Your task to perform on an android device: install app "Indeed Job Search" Image 0: 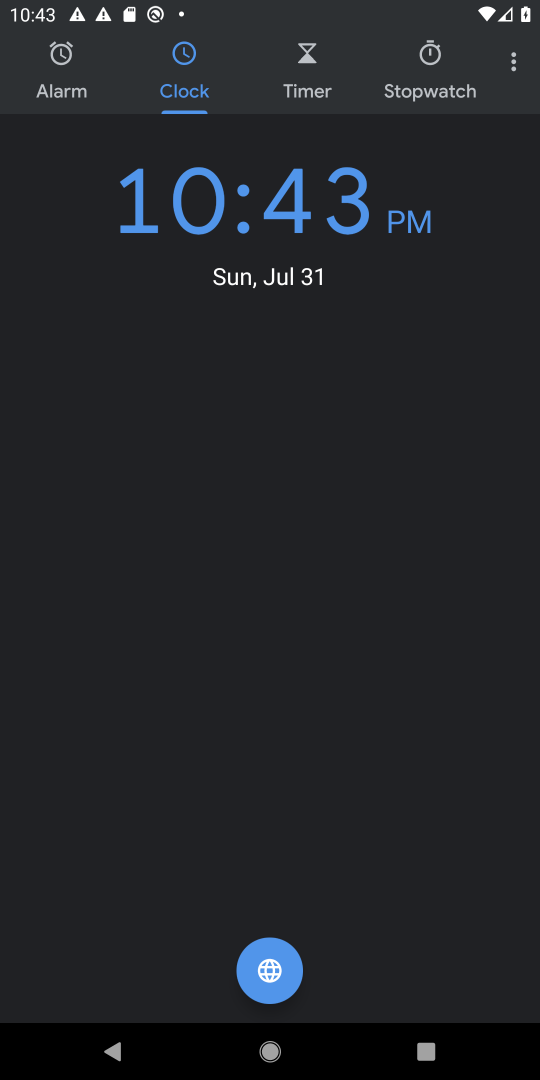
Step 0: press home button
Your task to perform on an android device: install app "Indeed Job Search" Image 1: 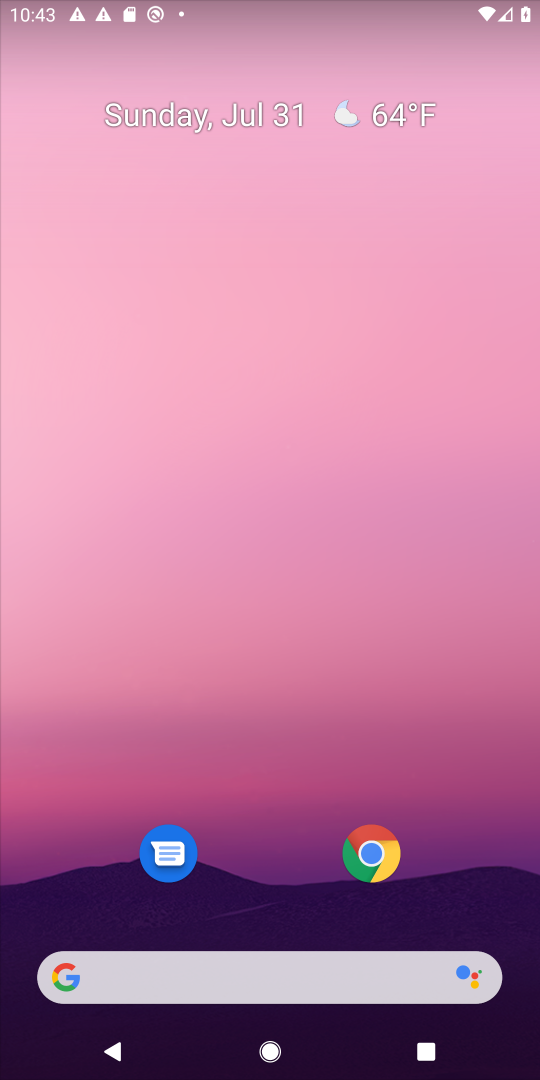
Step 1: drag from (307, 1048) to (284, 181)
Your task to perform on an android device: install app "Indeed Job Search" Image 2: 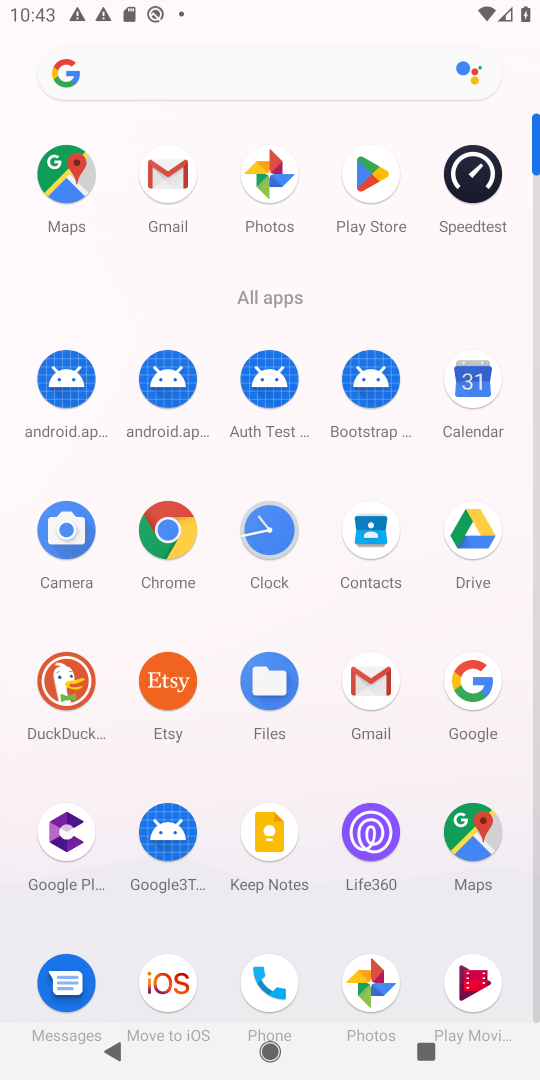
Step 2: click (368, 182)
Your task to perform on an android device: install app "Indeed Job Search" Image 3: 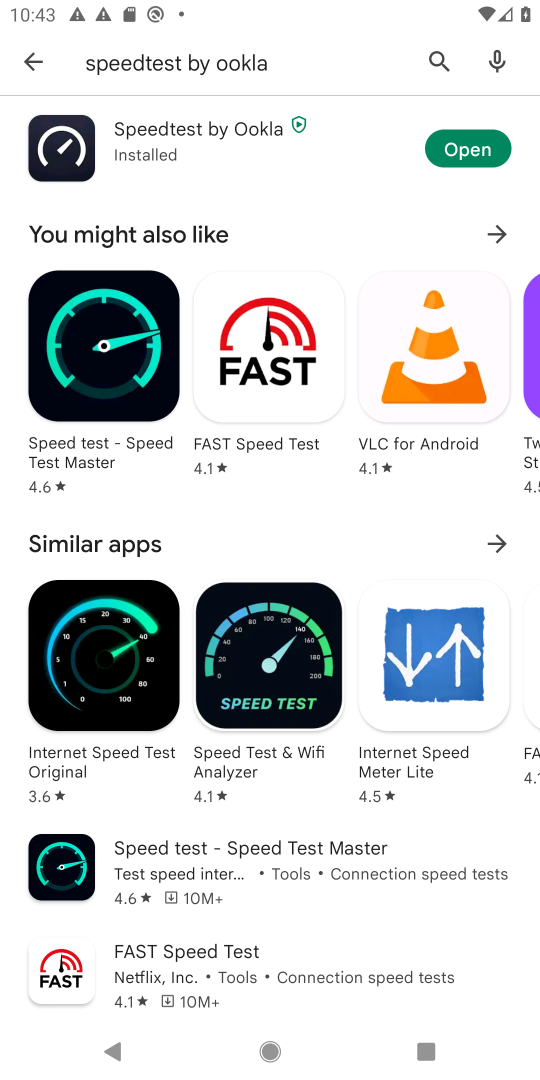
Step 3: click (437, 59)
Your task to perform on an android device: install app "Indeed Job Search" Image 4: 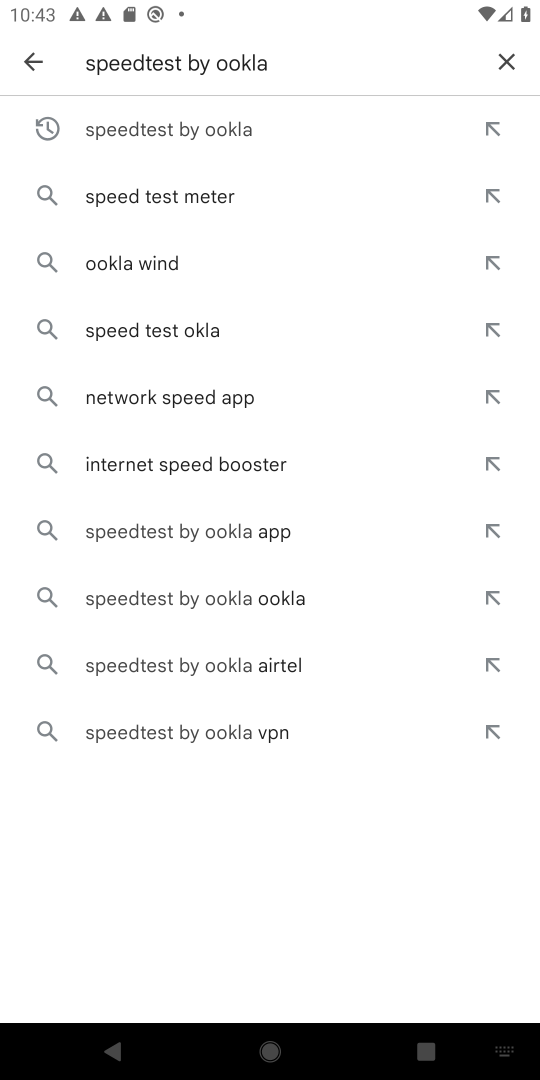
Step 4: click (506, 54)
Your task to perform on an android device: install app "Indeed Job Search" Image 5: 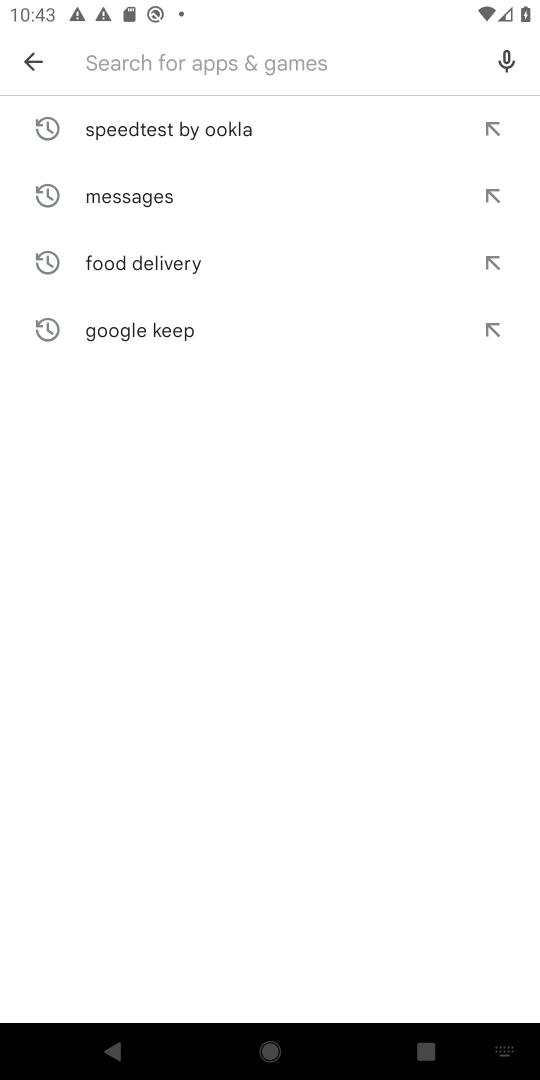
Step 5: type "Indeed Job Search"
Your task to perform on an android device: install app "Indeed Job Search" Image 6: 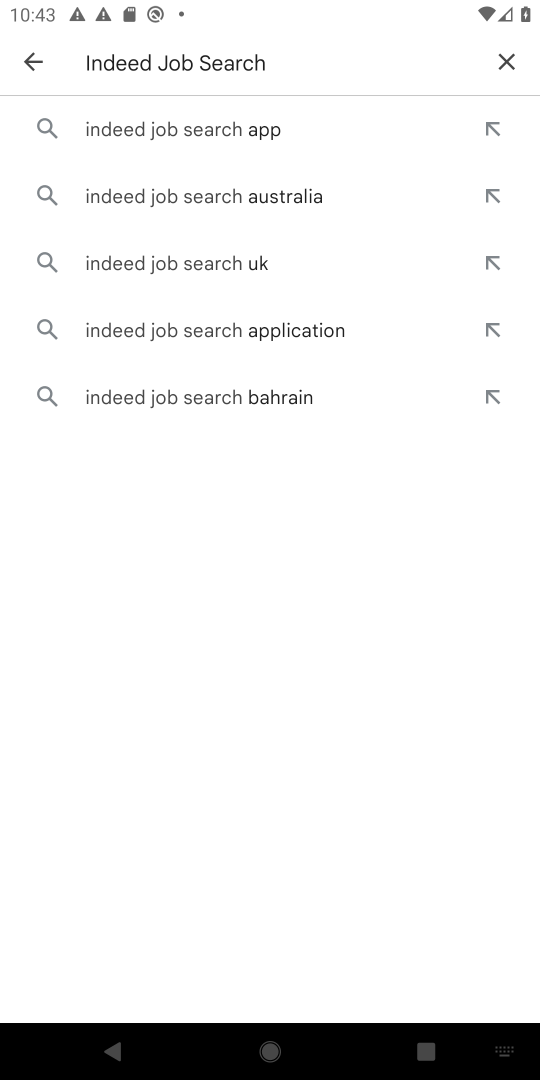
Step 6: click (207, 131)
Your task to perform on an android device: install app "Indeed Job Search" Image 7: 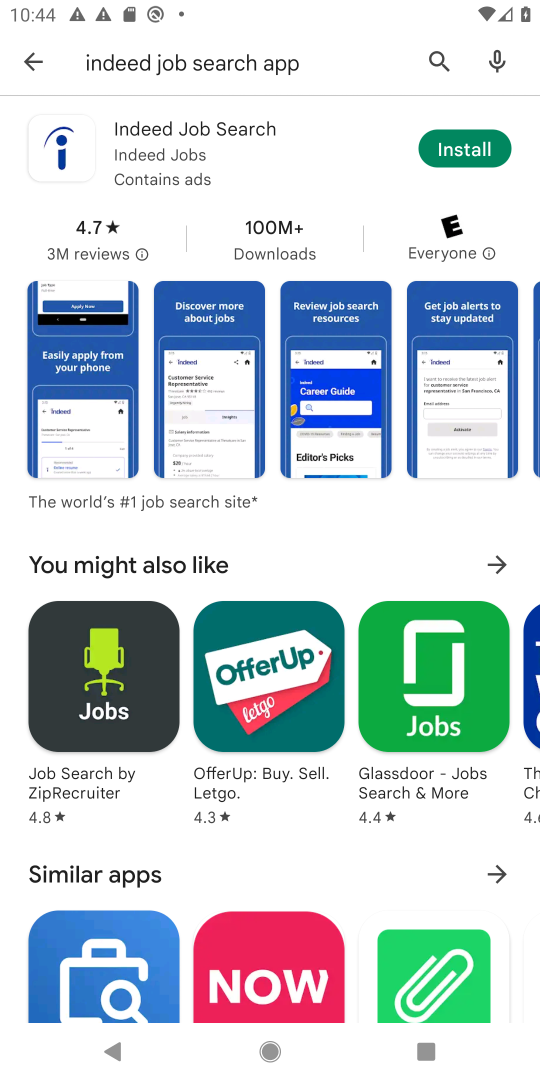
Step 7: click (467, 141)
Your task to perform on an android device: install app "Indeed Job Search" Image 8: 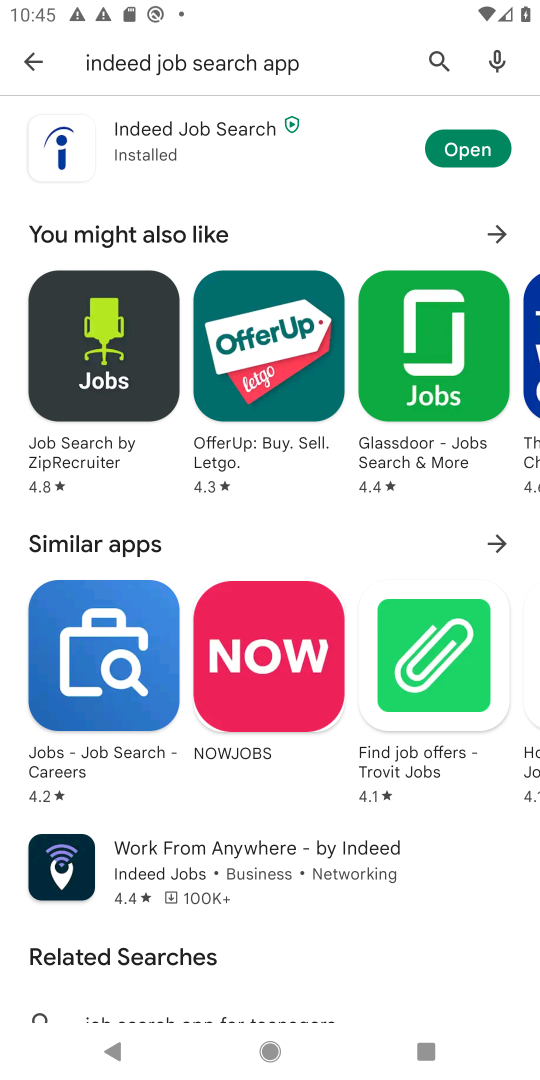
Step 8: task complete